Your task to perform on an android device: turn off javascript in the chrome app Image 0: 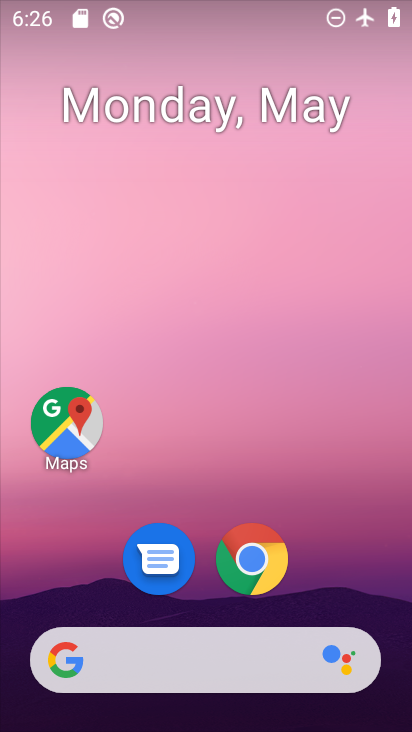
Step 0: click (250, 553)
Your task to perform on an android device: turn off javascript in the chrome app Image 1: 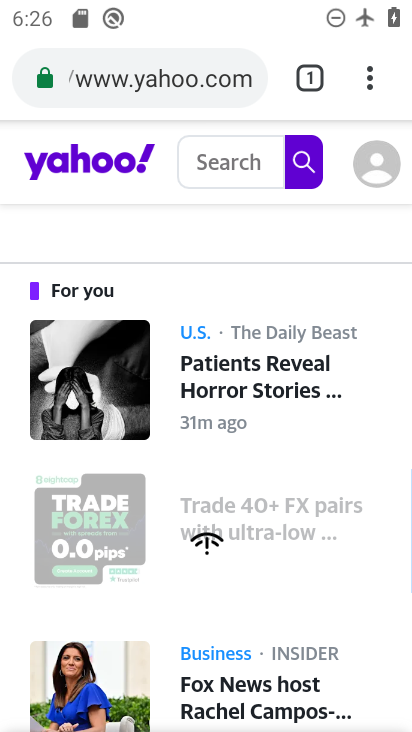
Step 1: click (373, 84)
Your task to perform on an android device: turn off javascript in the chrome app Image 2: 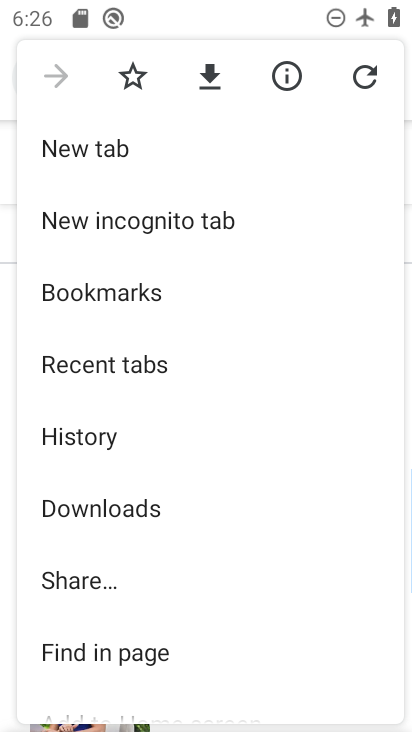
Step 2: drag from (252, 550) to (218, 286)
Your task to perform on an android device: turn off javascript in the chrome app Image 3: 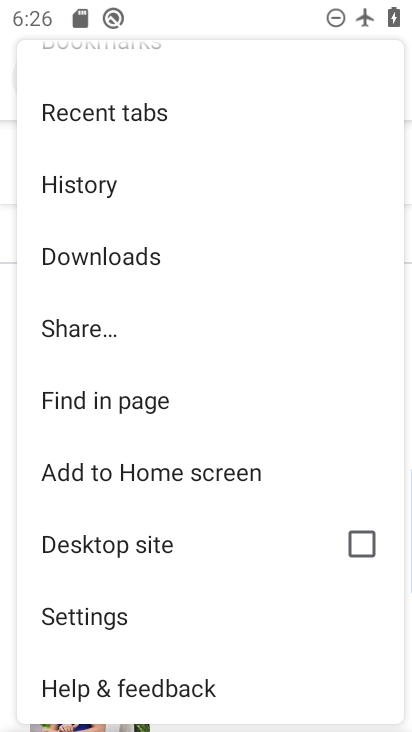
Step 3: click (79, 612)
Your task to perform on an android device: turn off javascript in the chrome app Image 4: 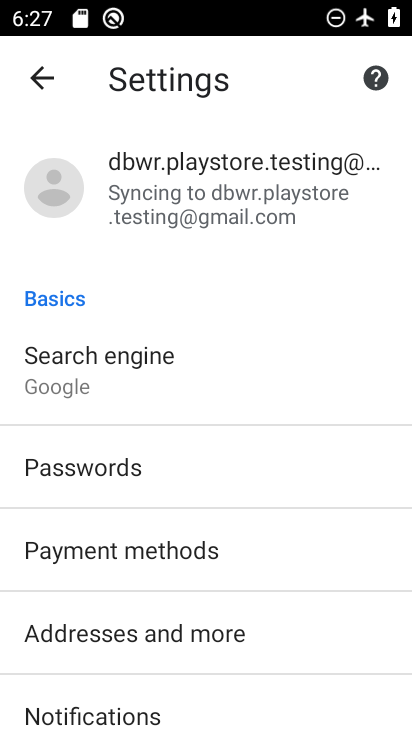
Step 4: drag from (253, 652) to (181, 298)
Your task to perform on an android device: turn off javascript in the chrome app Image 5: 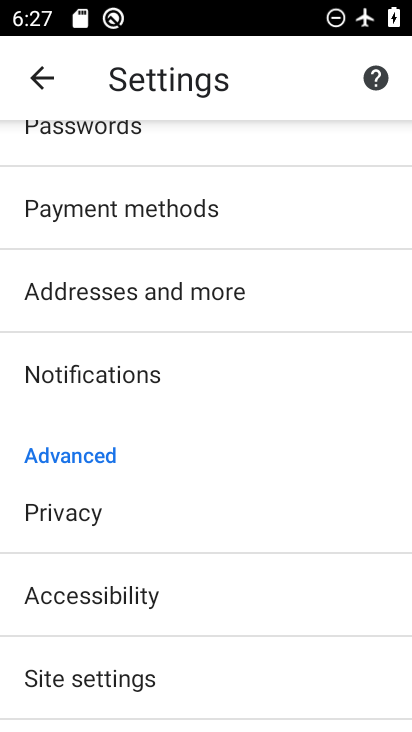
Step 5: drag from (216, 636) to (206, 460)
Your task to perform on an android device: turn off javascript in the chrome app Image 6: 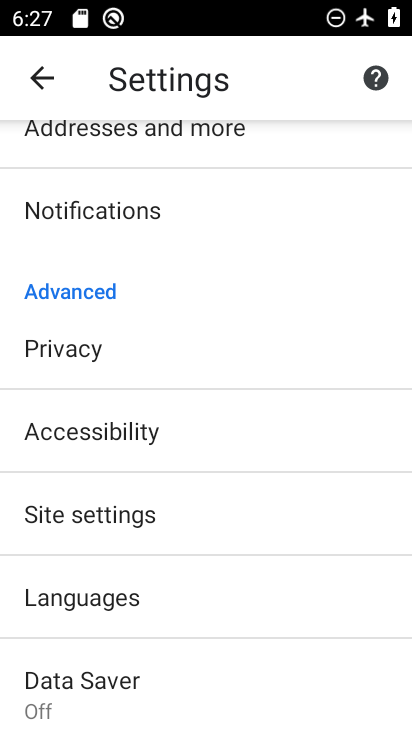
Step 6: click (95, 515)
Your task to perform on an android device: turn off javascript in the chrome app Image 7: 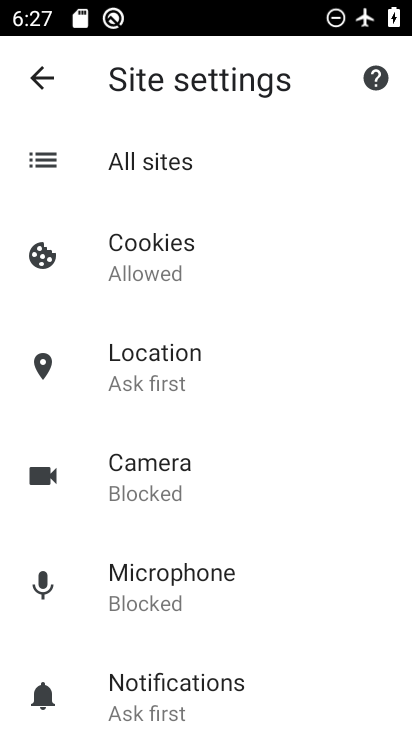
Step 7: drag from (220, 621) to (170, 290)
Your task to perform on an android device: turn off javascript in the chrome app Image 8: 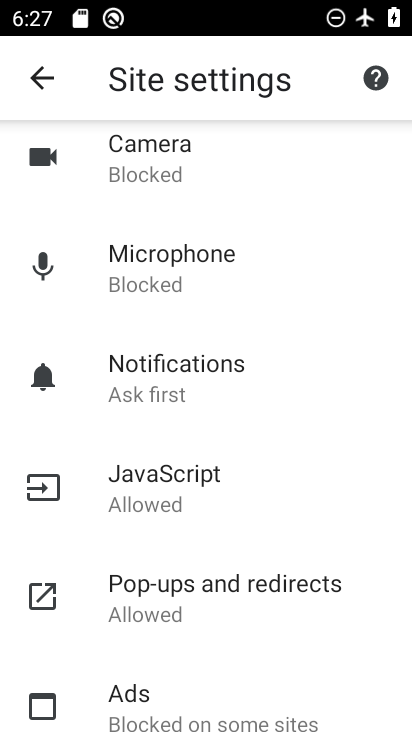
Step 8: click (188, 495)
Your task to perform on an android device: turn off javascript in the chrome app Image 9: 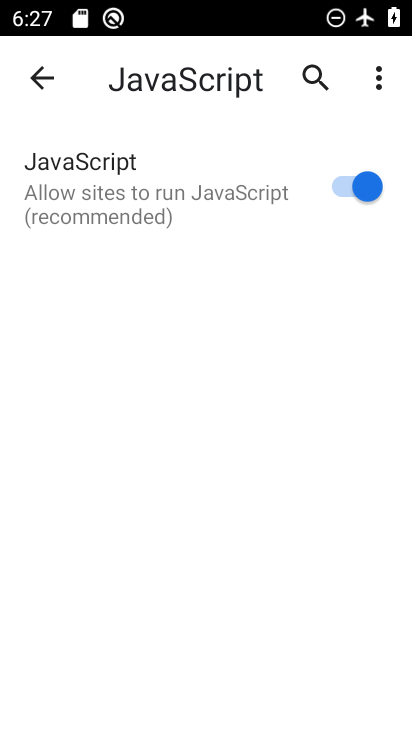
Step 9: click (351, 192)
Your task to perform on an android device: turn off javascript in the chrome app Image 10: 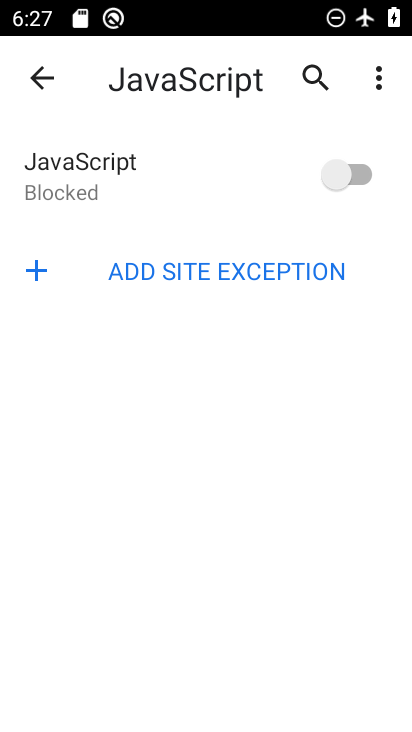
Step 10: task complete